Your task to perform on an android device: Open Maps and search for coffee Image 0: 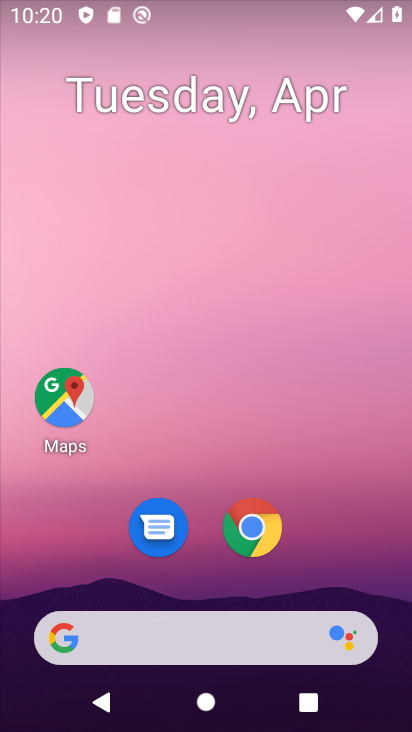
Step 0: click (51, 405)
Your task to perform on an android device: Open Maps and search for coffee Image 1: 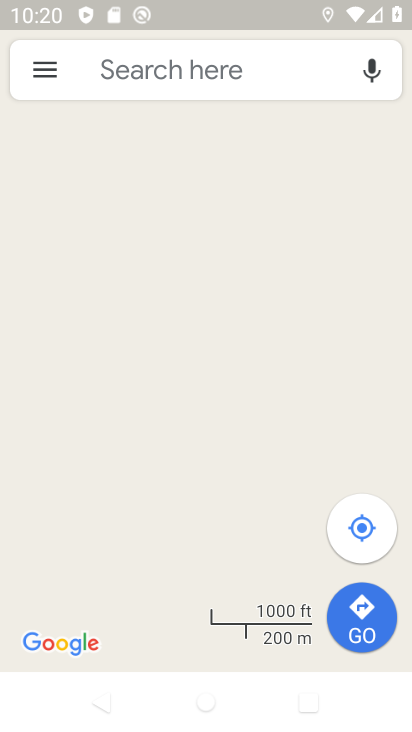
Step 1: click (207, 81)
Your task to perform on an android device: Open Maps and search for coffee Image 2: 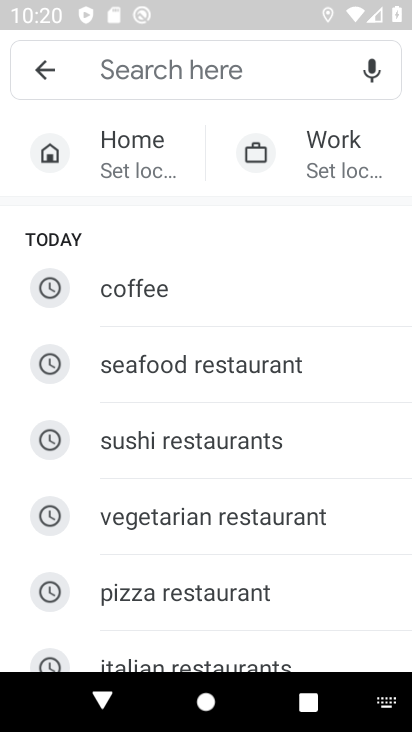
Step 2: type "coffee"
Your task to perform on an android device: Open Maps and search for coffee Image 3: 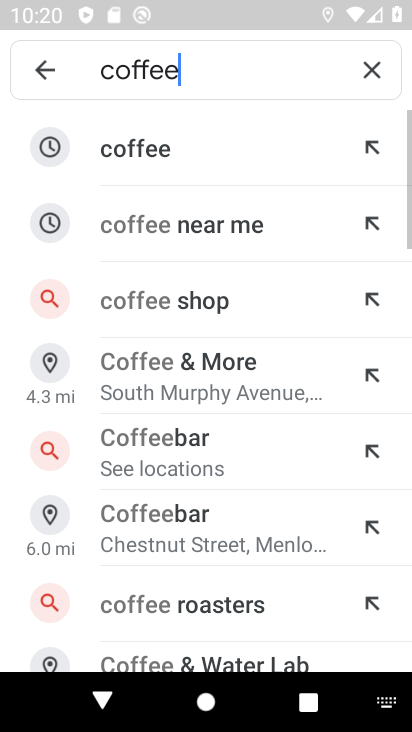
Step 3: click (225, 149)
Your task to perform on an android device: Open Maps and search for coffee Image 4: 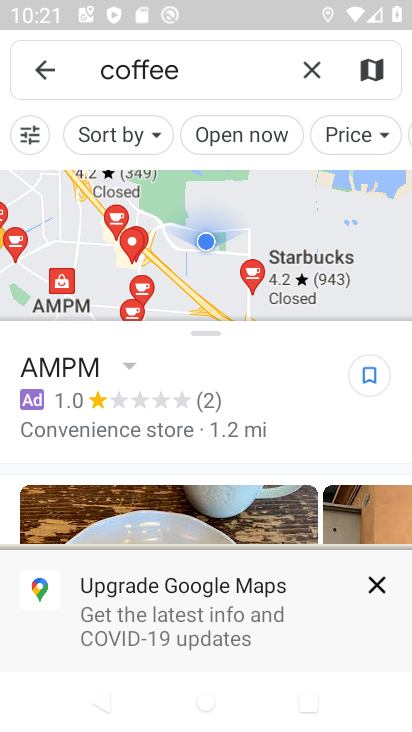
Step 4: task complete